Your task to perform on an android device: refresh tabs in the chrome app Image 0: 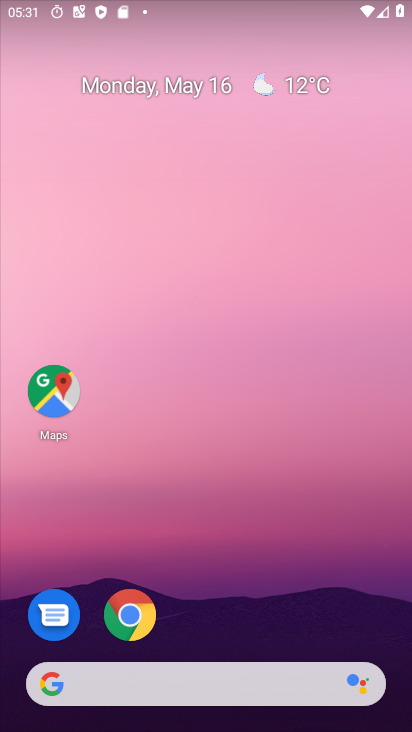
Step 0: drag from (292, 649) to (198, 134)
Your task to perform on an android device: refresh tabs in the chrome app Image 1: 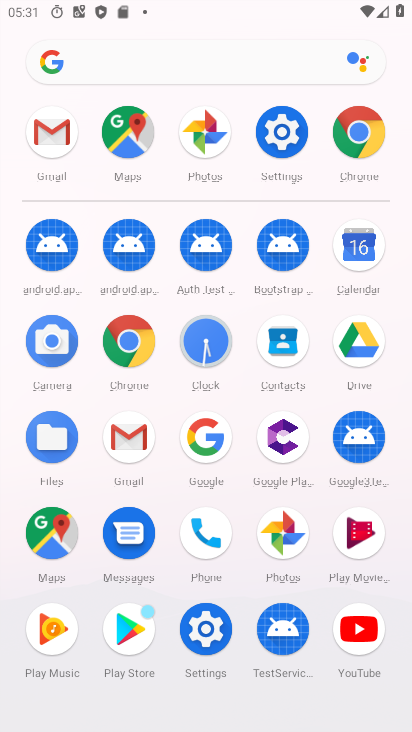
Step 1: drag from (270, 473) to (214, 3)
Your task to perform on an android device: refresh tabs in the chrome app Image 2: 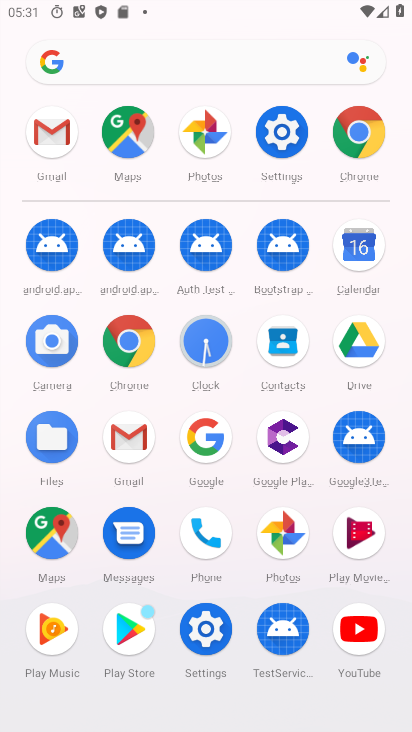
Step 2: click (365, 127)
Your task to perform on an android device: refresh tabs in the chrome app Image 3: 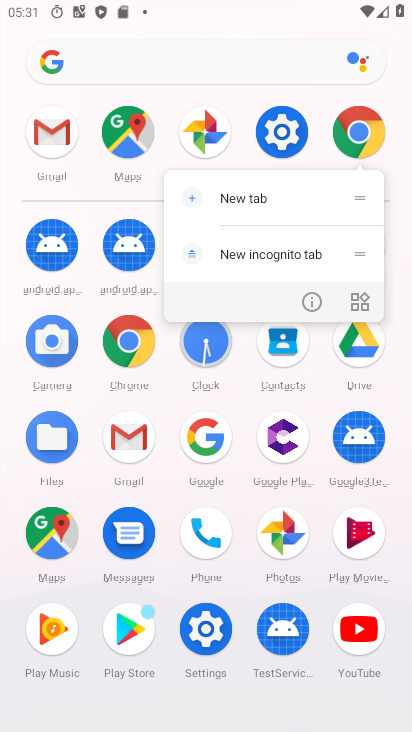
Step 3: click (360, 126)
Your task to perform on an android device: refresh tabs in the chrome app Image 4: 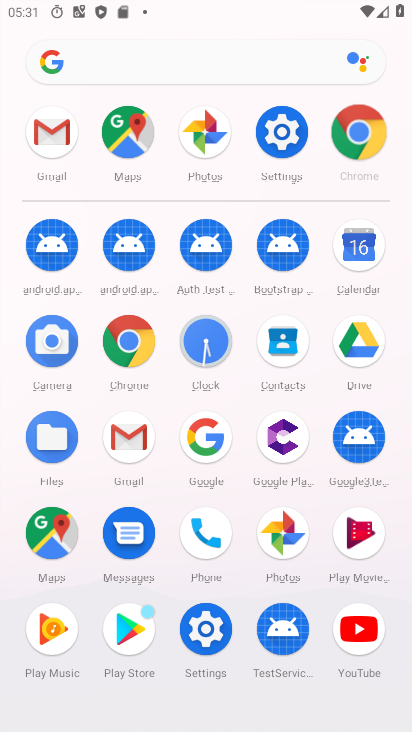
Step 4: click (359, 127)
Your task to perform on an android device: refresh tabs in the chrome app Image 5: 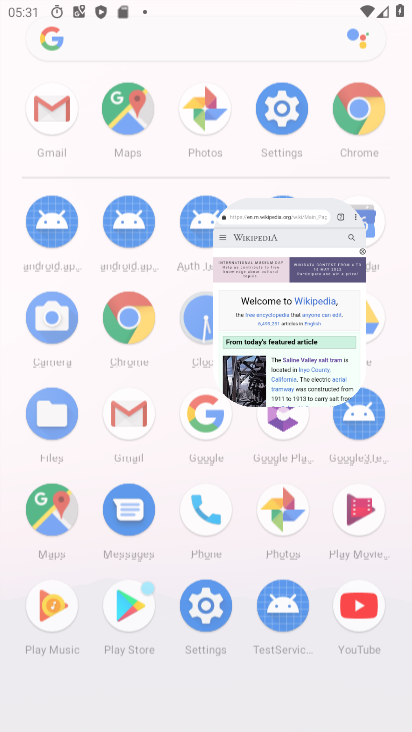
Step 5: click (359, 127)
Your task to perform on an android device: refresh tabs in the chrome app Image 6: 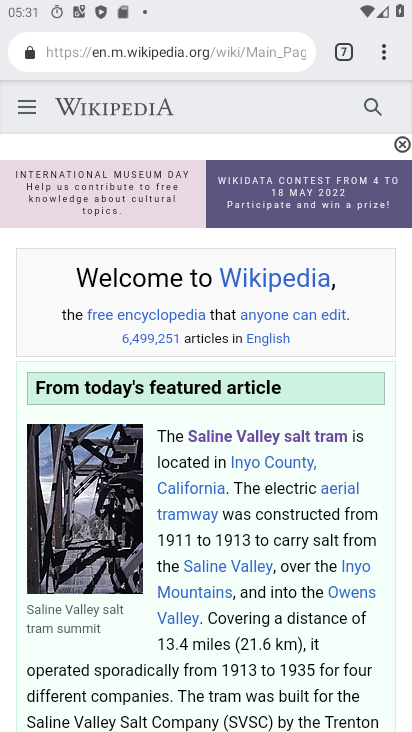
Step 6: click (382, 51)
Your task to perform on an android device: refresh tabs in the chrome app Image 7: 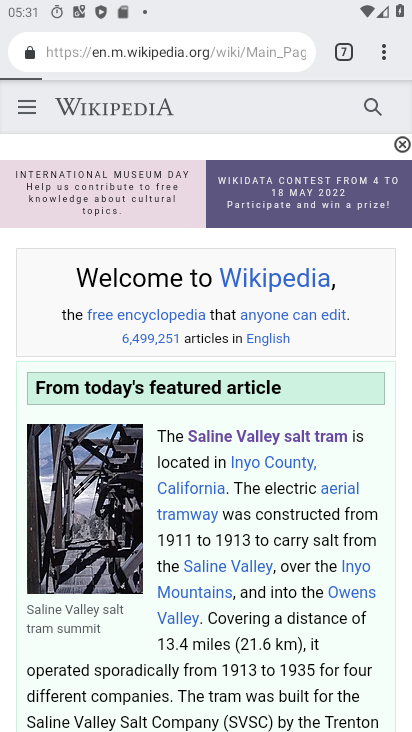
Step 7: click (384, 53)
Your task to perform on an android device: refresh tabs in the chrome app Image 8: 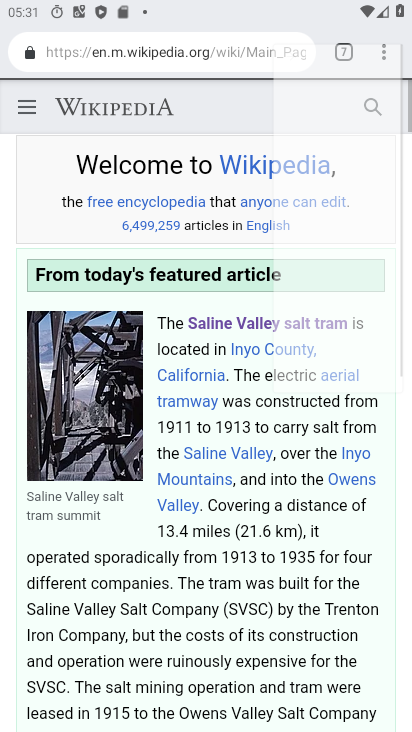
Step 8: click (385, 53)
Your task to perform on an android device: refresh tabs in the chrome app Image 9: 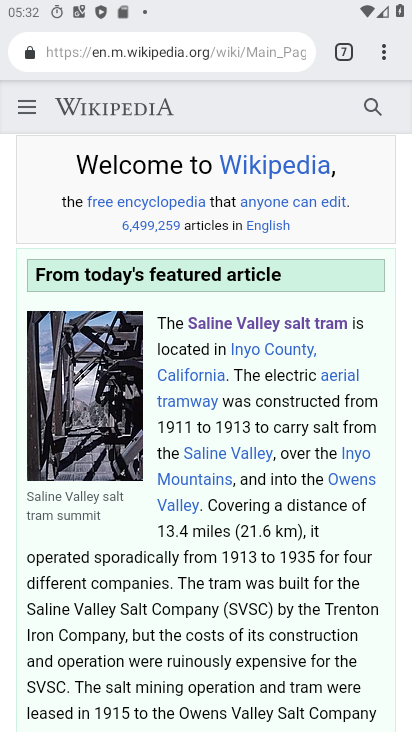
Step 9: task complete